Your task to perform on an android device: See recent photos Image 0: 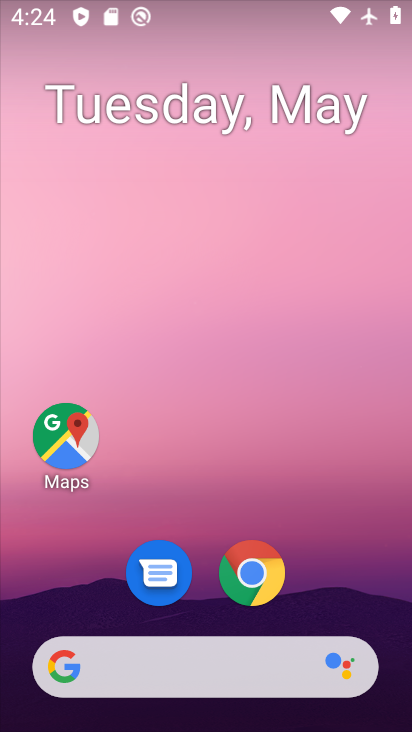
Step 0: drag from (286, 343) to (242, 153)
Your task to perform on an android device: See recent photos Image 1: 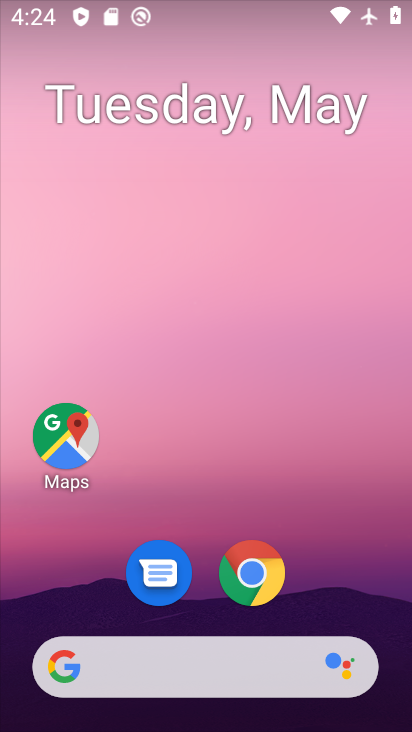
Step 1: drag from (305, 559) to (256, 186)
Your task to perform on an android device: See recent photos Image 2: 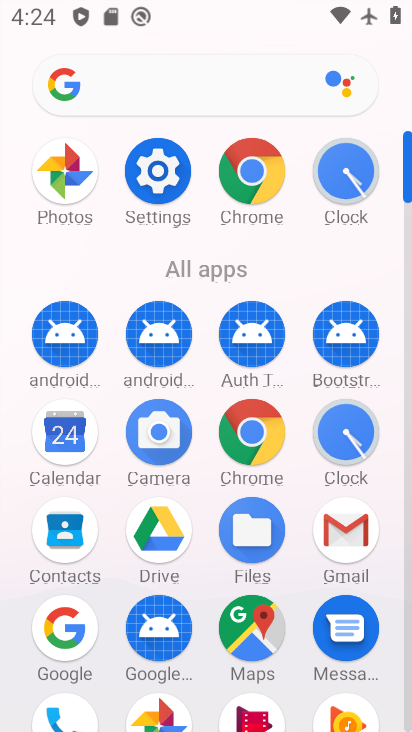
Step 2: click (57, 157)
Your task to perform on an android device: See recent photos Image 3: 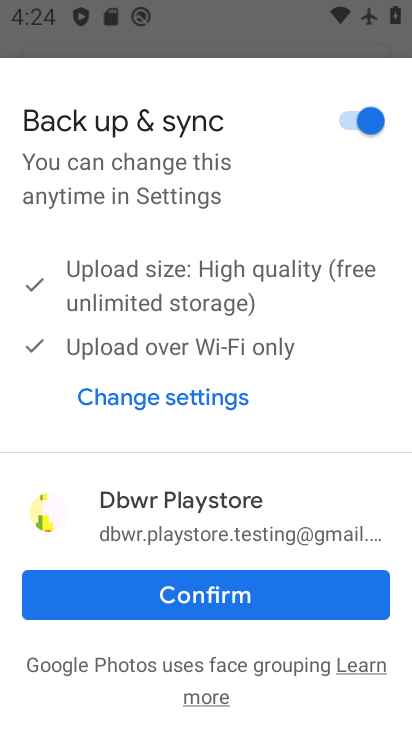
Step 3: click (214, 595)
Your task to perform on an android device: See recent photos Image 4: 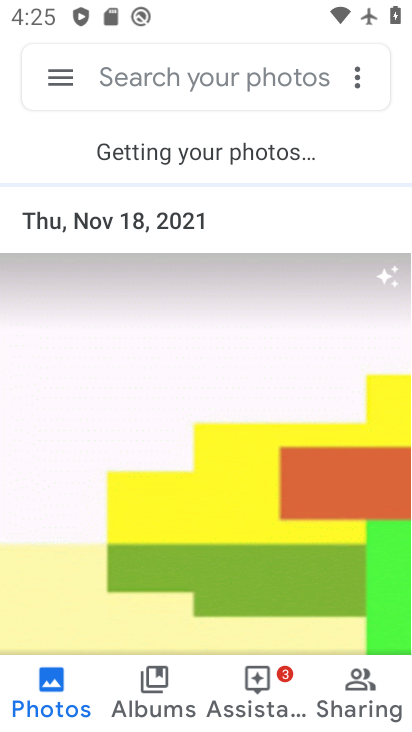
Step 4: task complete